Your task to perform on an android device: Open Google Chrome Image 0: 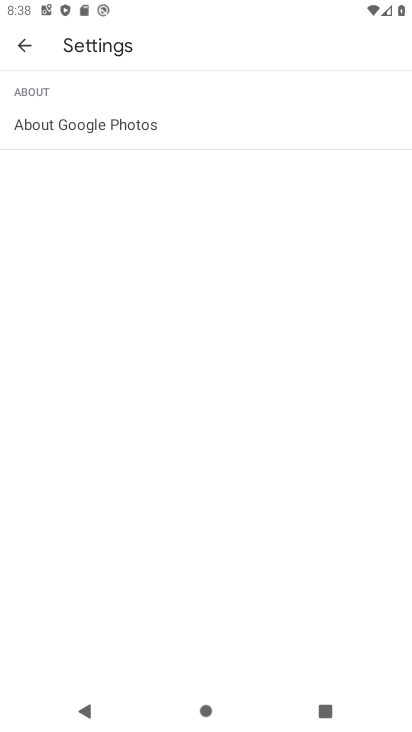
Step 0: press home button
Your task to perform on an android device: Open Google Chrome Image 1: 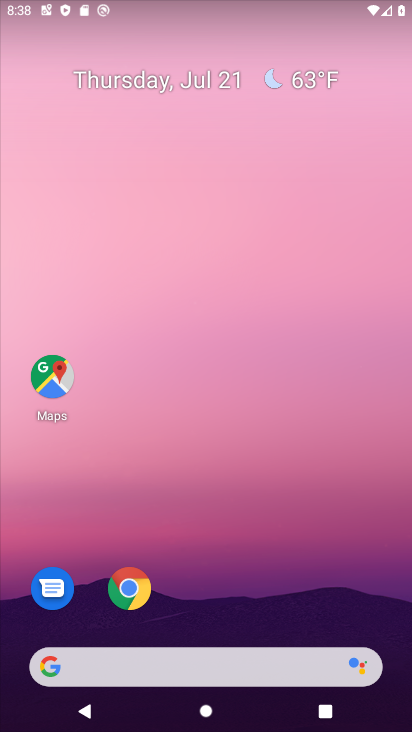
Step 1: click (120, 586)
Your task to perform on an android device: Open Google Chrome Image 2: 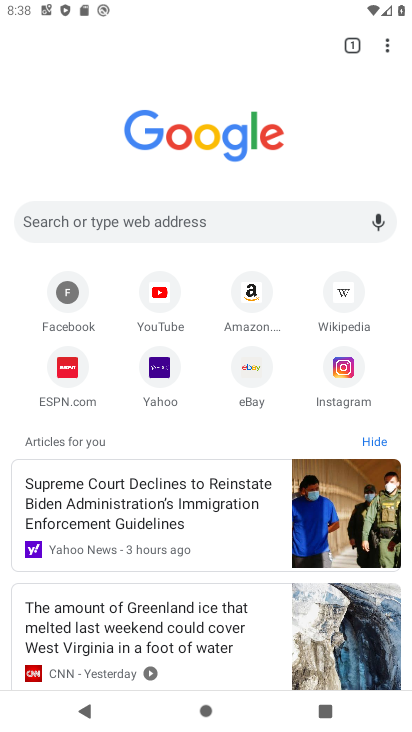
Step 2: task complete